Your task to perform on an android device: Open Maps and search for coffee Image 0: 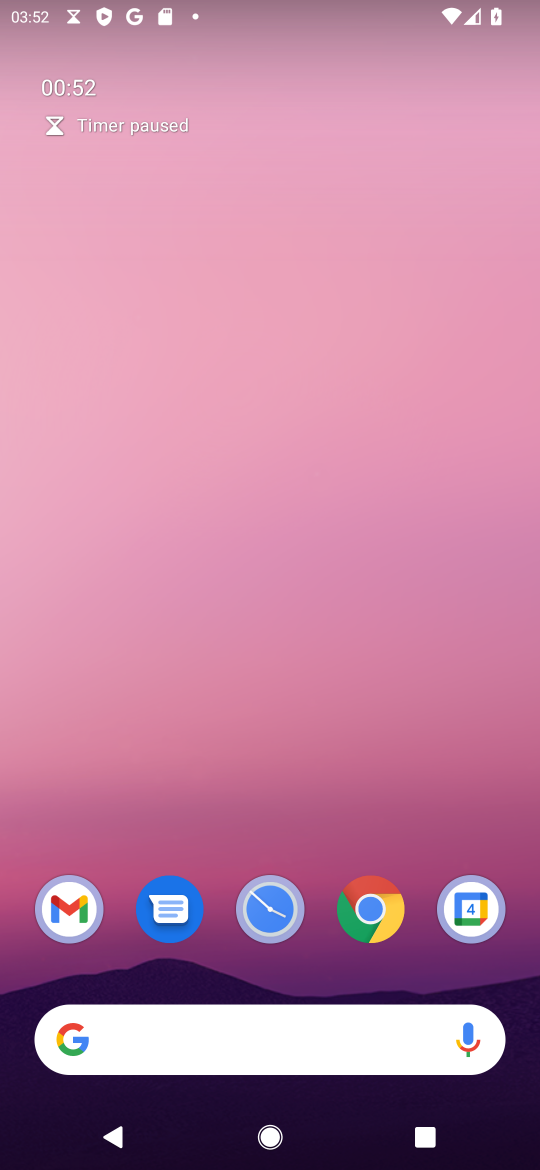
Step 0: drag from (347, 904) to (482, 411)
Your task to perform on an android device: Open Maps and search for coffee Image 1: 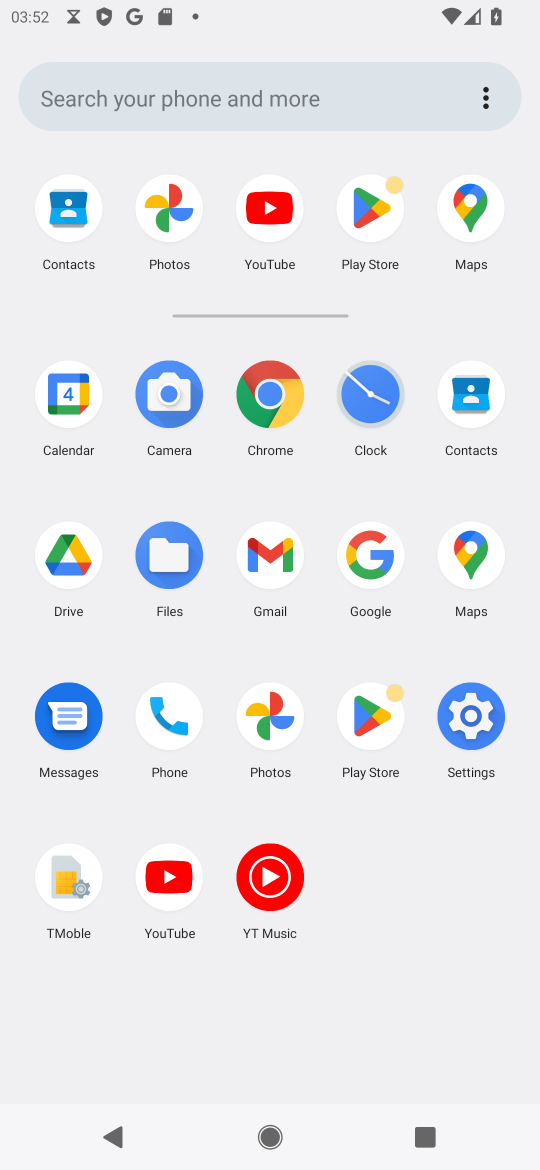
Step 1: click (475, 208)
Your task to perform on an android device: Open Maps and search for coffee Image 2: 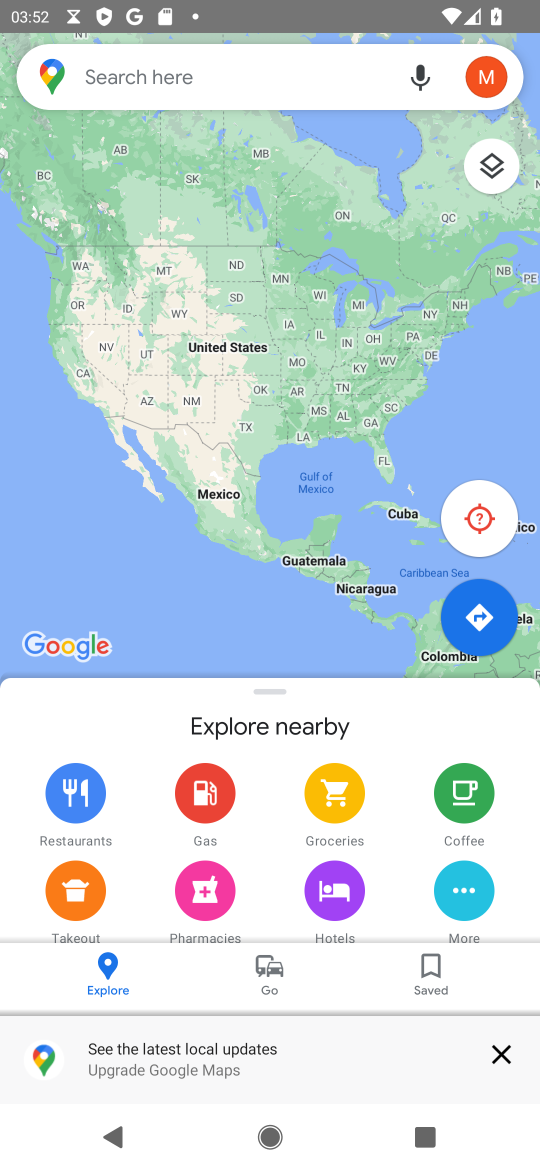
Step 2: click (246, 86)
Your task to perform on an android device: Open Maps and search for coffee Image 3: 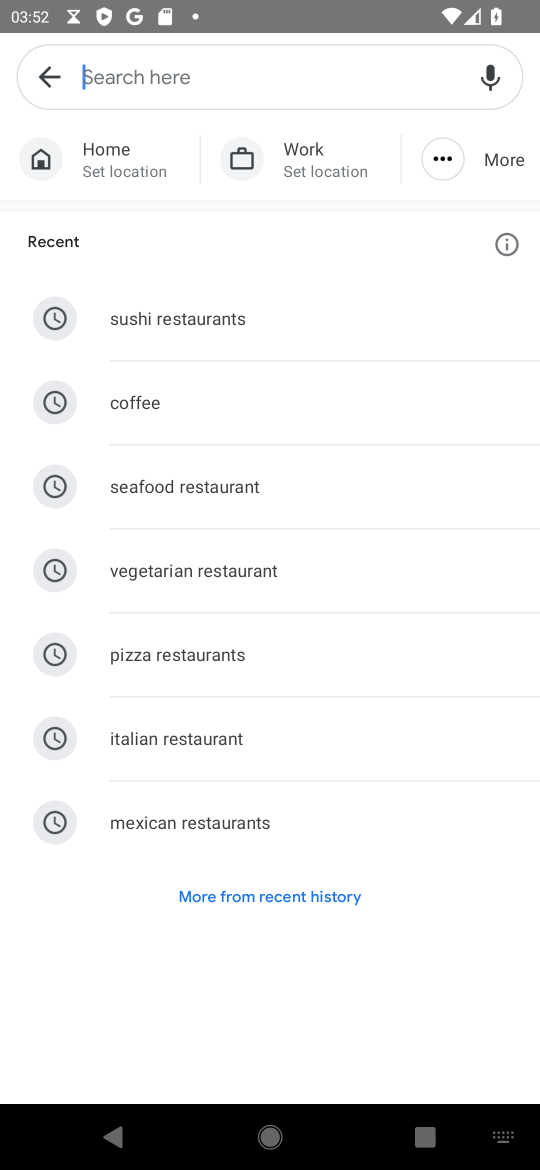
Step 3: click (147, 403)
Your task to perform on an android device: Open Maps and search for coffee Image 4: 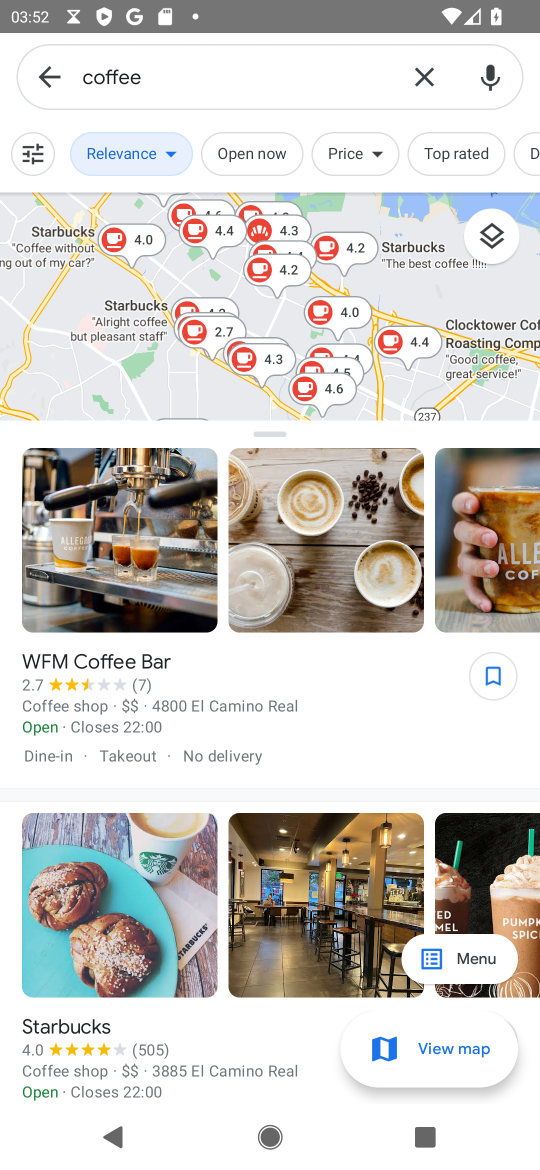
Step 4: task complete